Your task to perform on an android device: Go to eBay Image 0: 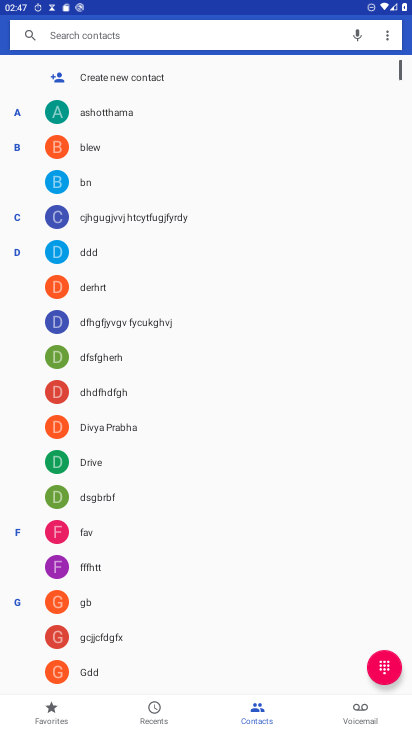
Step 0: press home button
Your task to perform on an android device: Go to eBay Image 1: 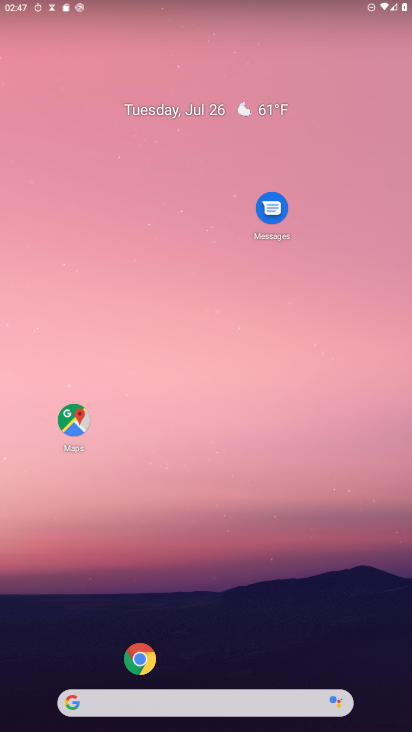
Step 1: click (83, 693)
Your task to perform on an android device: Go to eBay Image 2: 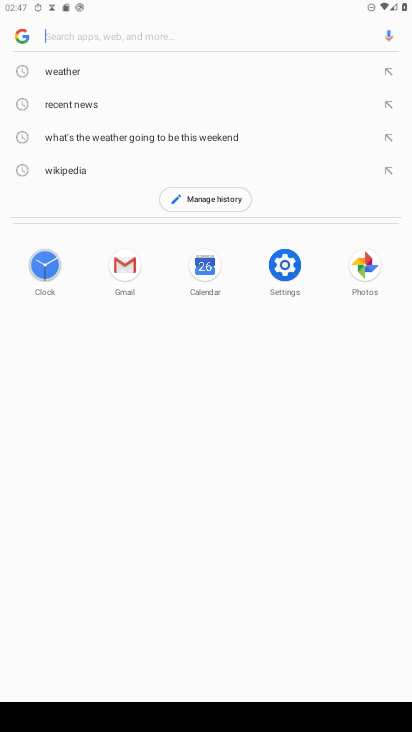
Step 2: type "eBay"
Your task to perform on an android device: Go to eBay Image 3: 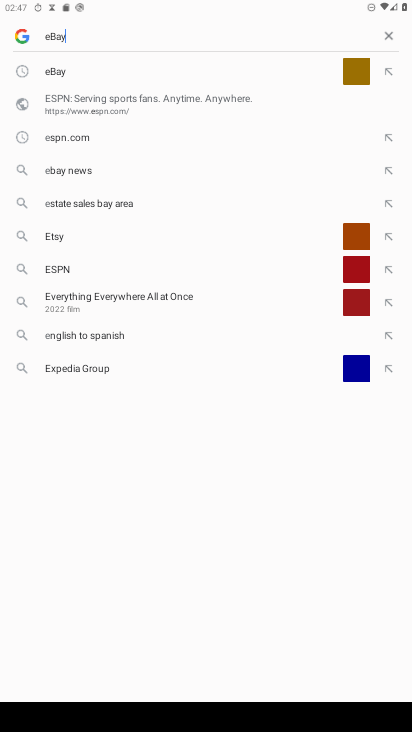
Step 3: type ""
Your task to perform on an android device: Go to eBay Image 4: 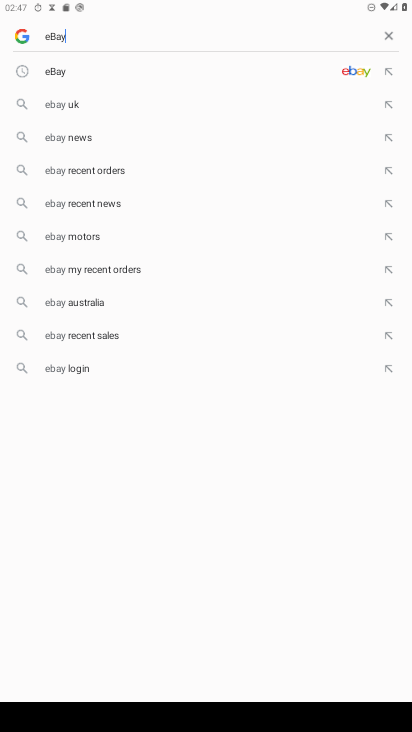
Step 4: click (53, 72)
Your task to perform on an android device: Go to eBay Image 5: 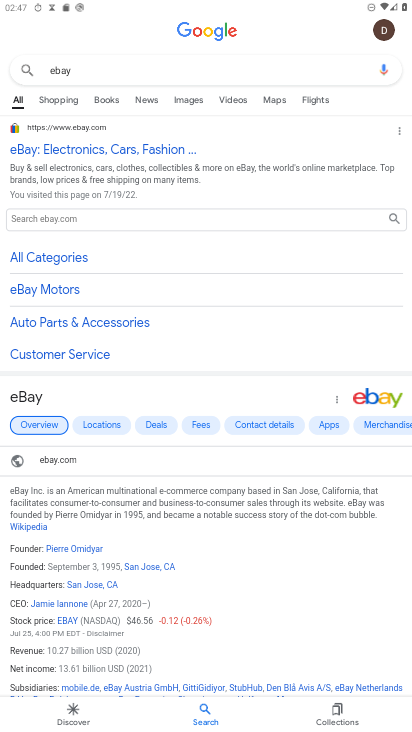
Step 5: task complete